Your task to perform on an android device: Open Chrome and go to settings Image 0: 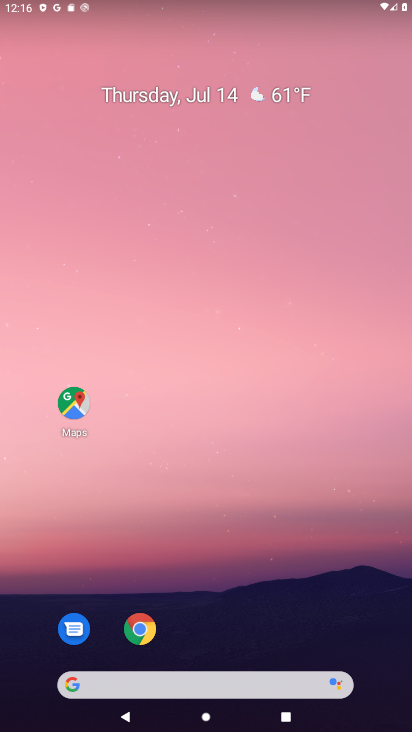
Step 0: click (130, 634)
Your task to perform on an android device: Open Chrome and go to settings Image 1: 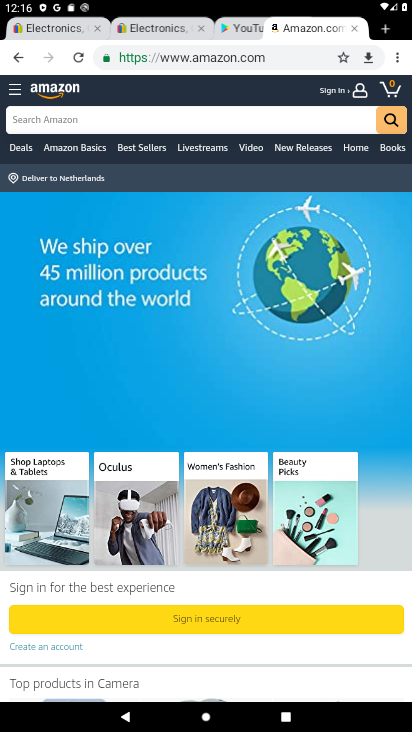
Step 1: click (403, 56)
Your task to perform on an android device: Open Chrome and go to settings Image 2: 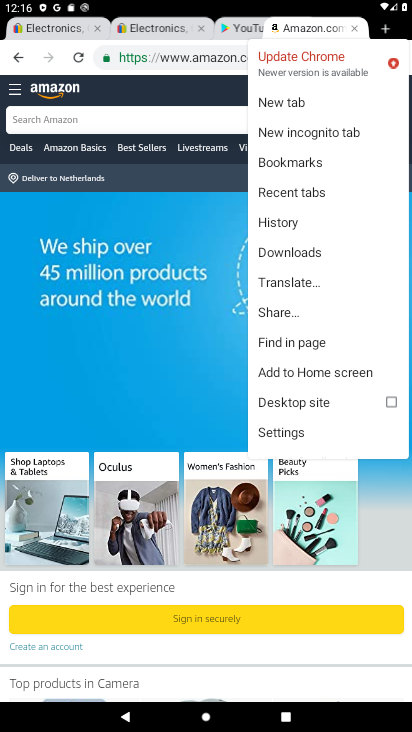
Step 2: click (325, 427)
Your task to perform on an android device: Open Chrome and go to settings Image 3: 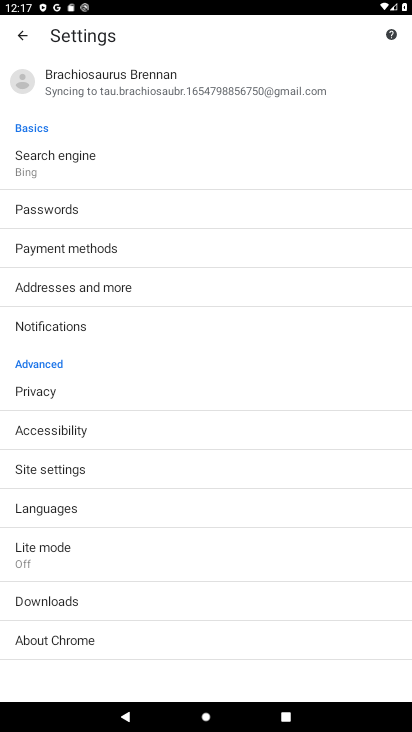
Step 3: task complete